Your task to perform on an android device: toggle show notifications on the lock screen Image 0: 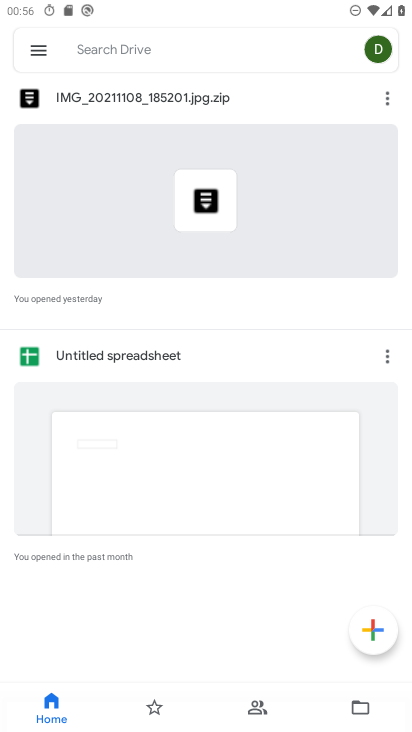
Step 0: press home button
Your task to perform on an android device: toggle show notifications on the lock screen Image 1: 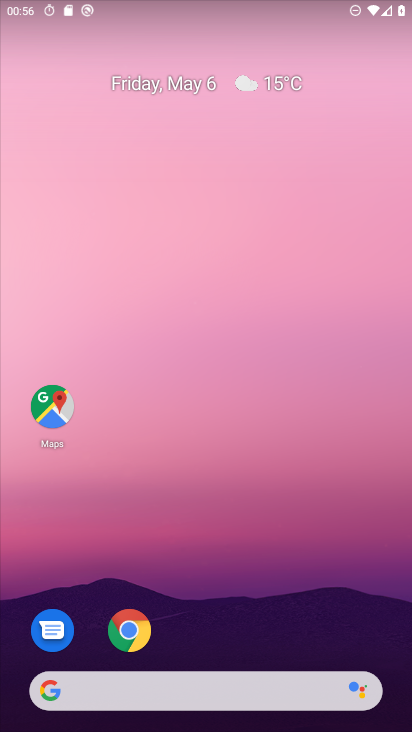
Step 1: drag from (246, 600) to (239, 131)
Your task to perform on an android device: toggle show notifications on the lock screen Image 2: 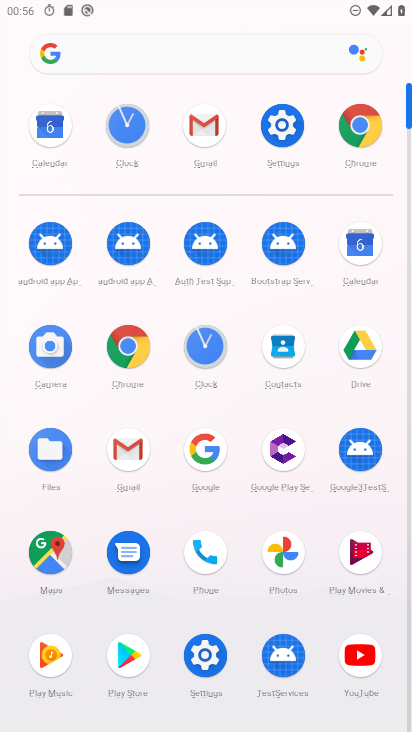
Step 2: click (283, 125)
Your task to perform on an android device: toggle show notifications on the lock screen Image 3: 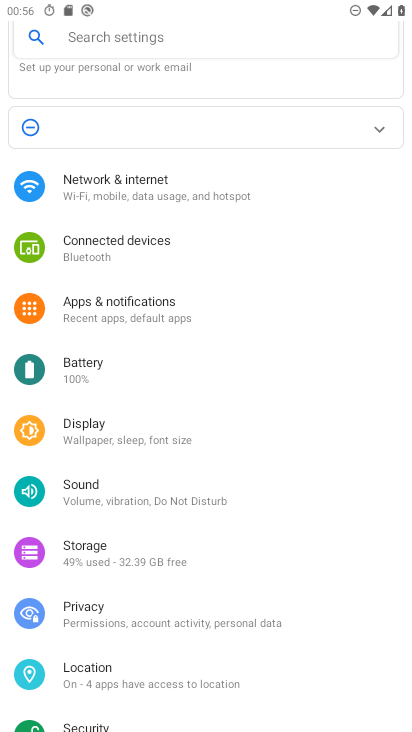
Step 3: click (151, 306)
Your task to perform on an android device: toggle show notifications on the lock screen Image 4: 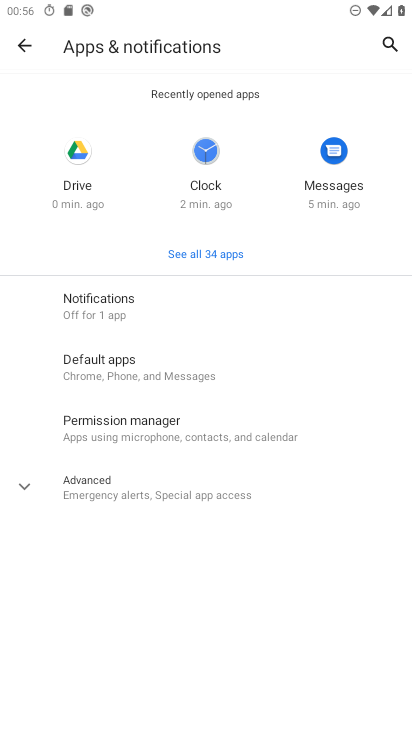
Step 4: click (151, 304)
Your task to perform on an android device: toggle show notifications on the lock screen Image 5: 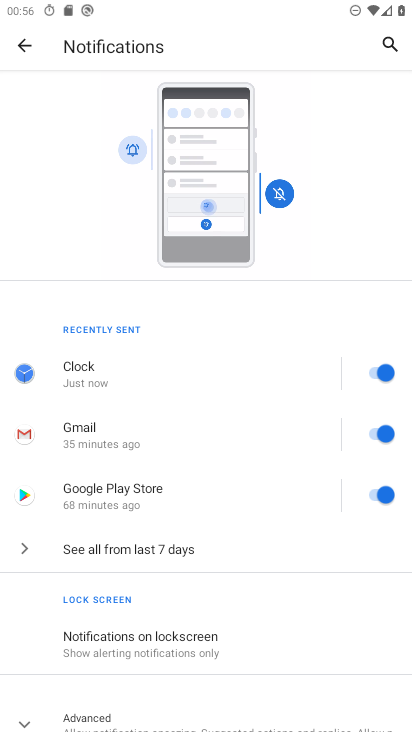
Step 5: click (214, 640)
Your task to perform on an android device: toggle show notifications on the lock screen Image 6: 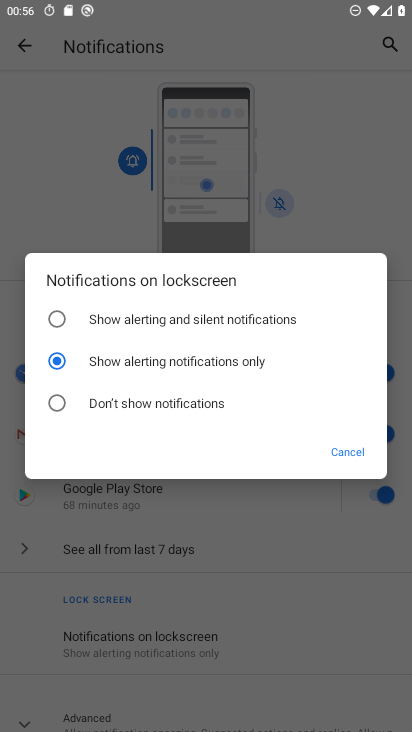
Step 6: click (169, 394)
Your task to perform on an android device: toggle show notifications on the lock screen Image 7: 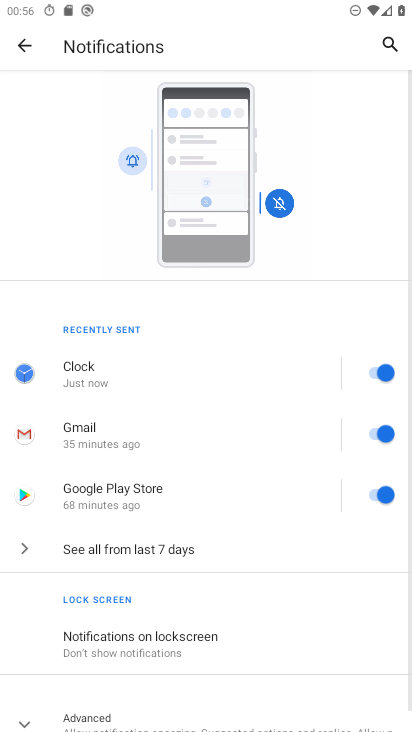
Step 7: task complete